Your task to perform on an android device: Go to Yahoo.com Image 0: 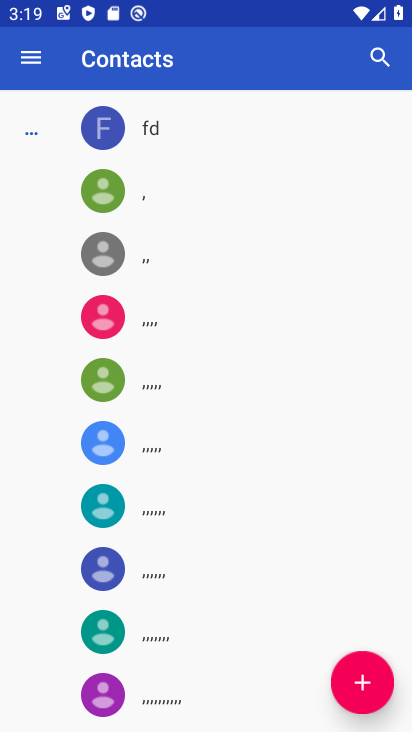
Step 0: press home button
Your task to perform on an android device: Go to Yahoo.com Image 1: 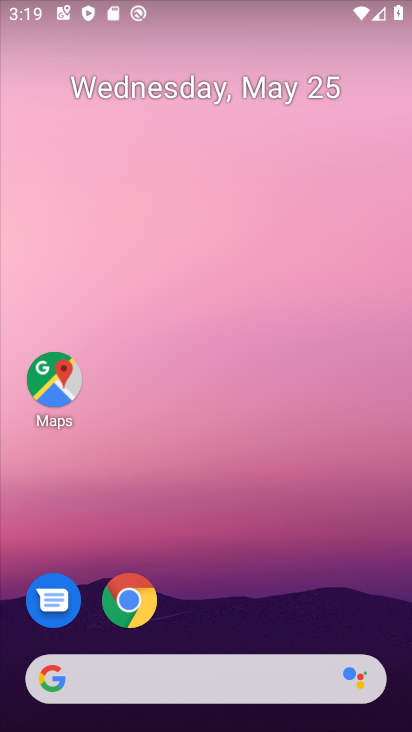
Step 1: click (126, 599)
Your task to perform on an android device: Go to Yahoo.com Image 2: 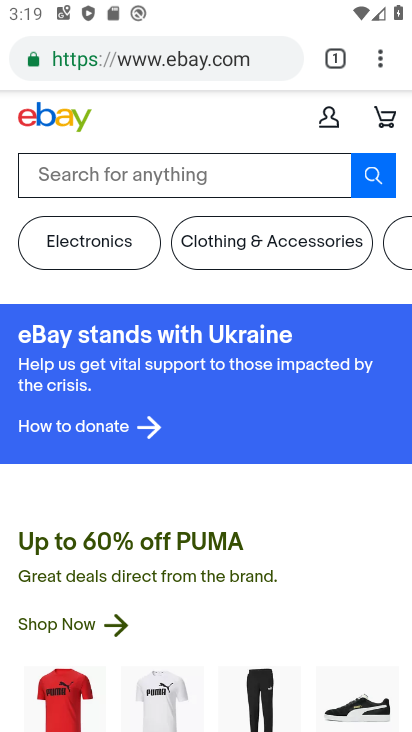
Step 2: click (340, 59)
Your task to perform on an android device: Go to Yahoo.com Image 3: 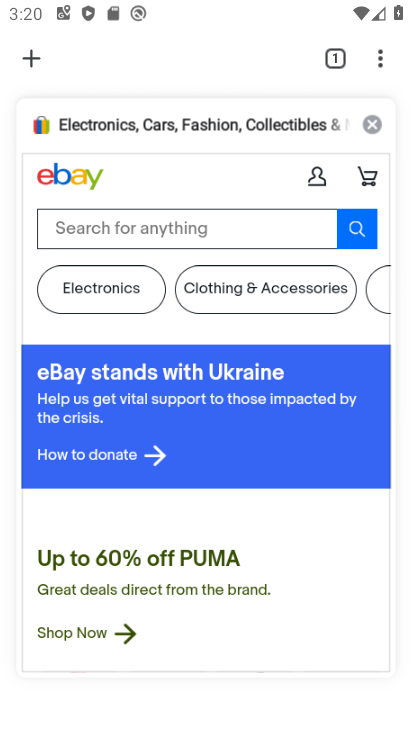
Step 3: click (370, 123)
Your task to perform on an android device: Go to Yahoo.com Image 4: 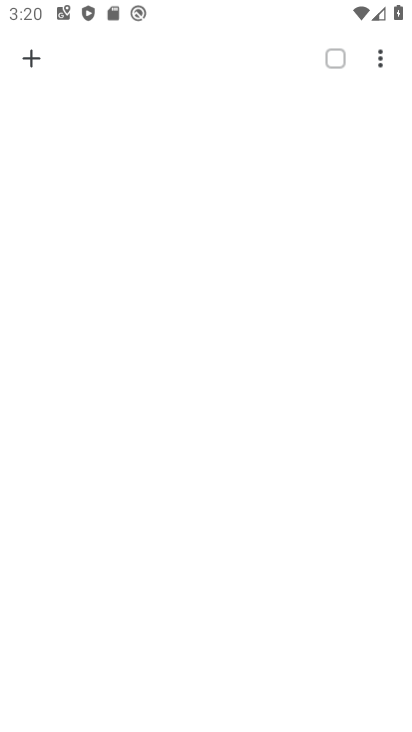
Step 4: click (35, 57)
Your task to perform on an android device: Go to Yahoo.com Image 5: 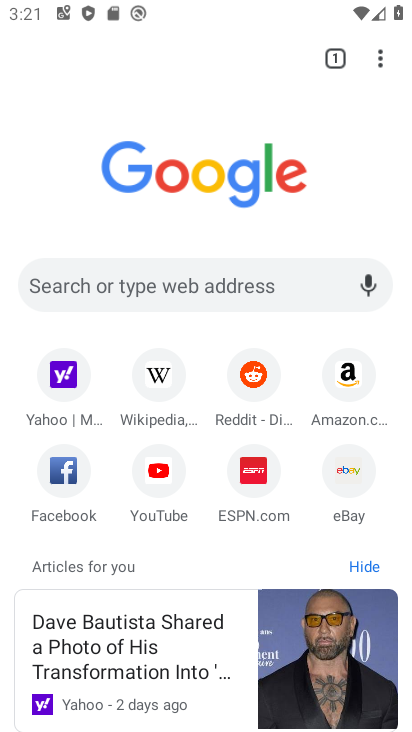
Step 5: click (62, 374)
Your task to perform on an android device: Go to Yahoo.com Image 6: 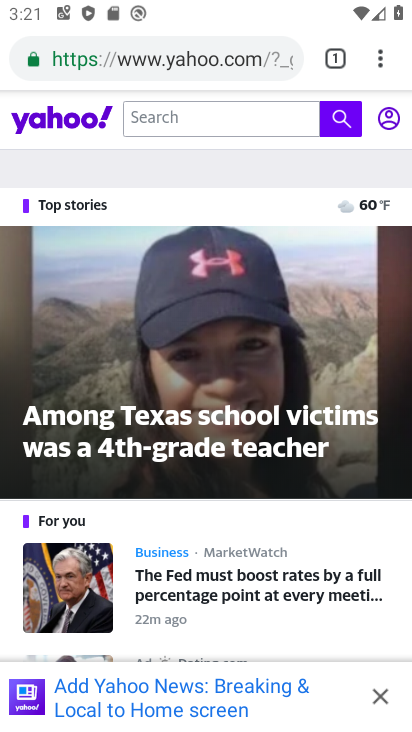
Step 6: task complete